Your task to perform on an android device: open sync settings in chrome Image 0: 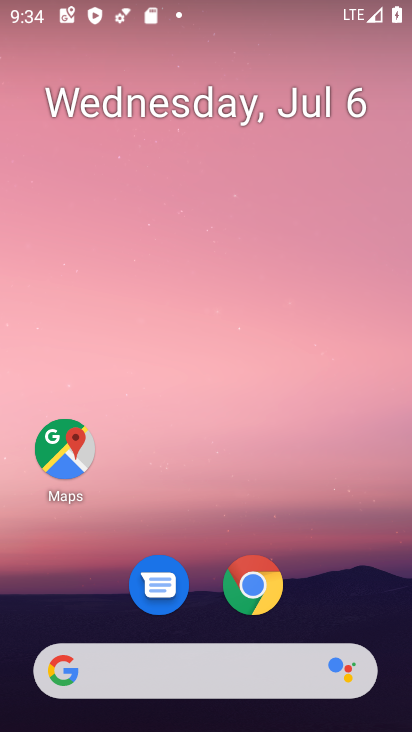
Step 0: click (257, 591)
Your task to perform on an android device: open sync settings in chrome Image 1: 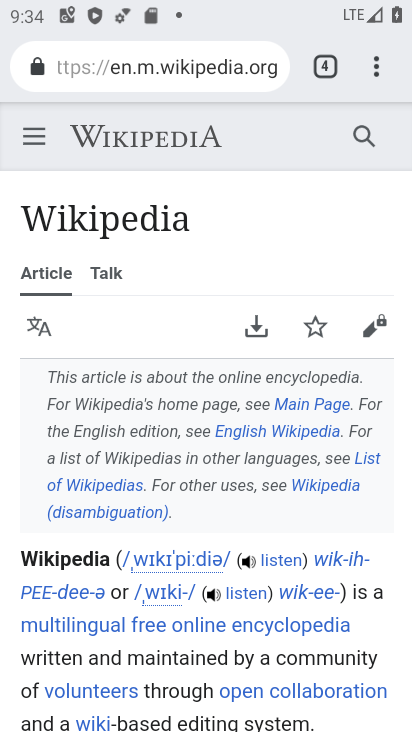
Step 1: click (373, 67)
Your task to perform on an android device: open sync settings in chrome Image 2: 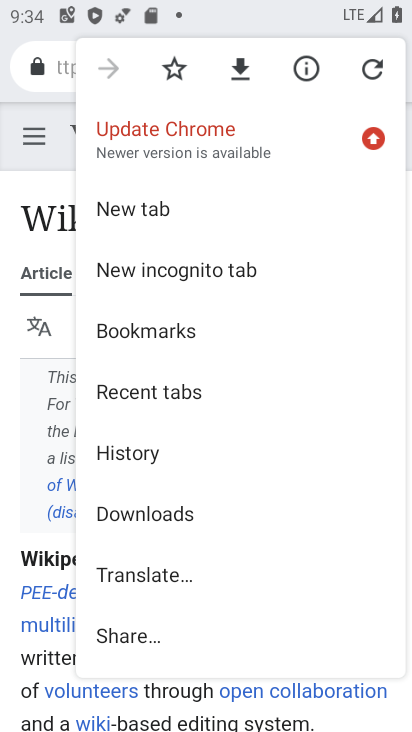
Step 2: drag from (246, 510) to (256, 156)
Your task to perform on an android device: open sync settings in chrome Image 3: 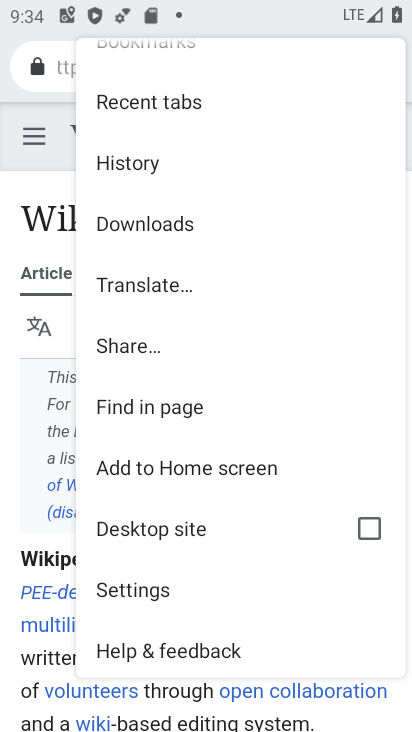
Step 3: click (142, 588)
Your task to perform on an android device: open sync settings in chrome Image 4: 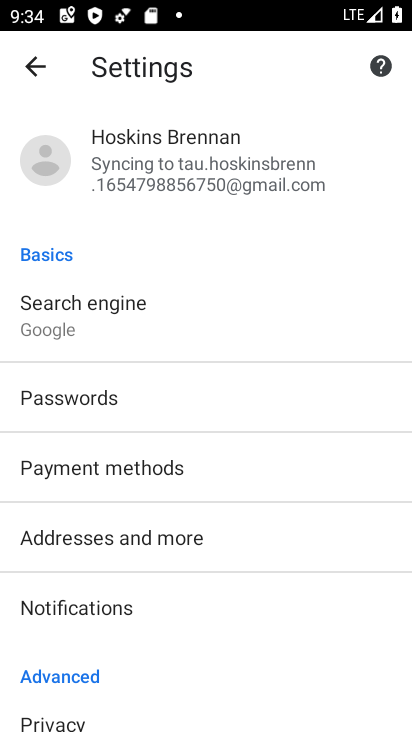
Step 4: click (218, 156)
Your task to perform on an android device: open sync settings in chrome Image 5: 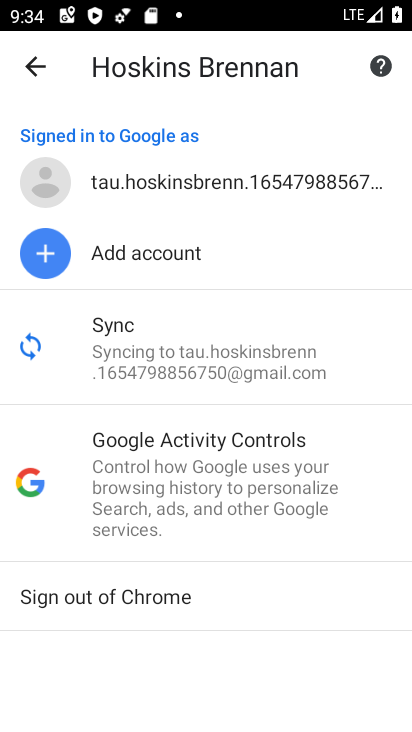
Step 5: click (125, 342)
Your task to perform on an android device: open sync settings in chrome Image 6: 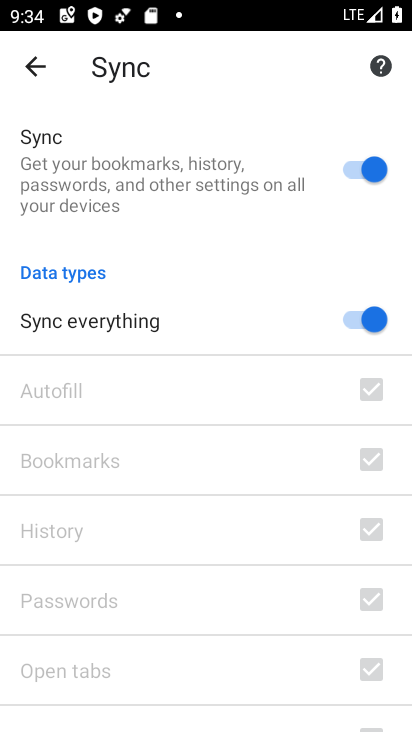
Step 6: task complete